Your task to perform on an android device: Check the weather Image 0: 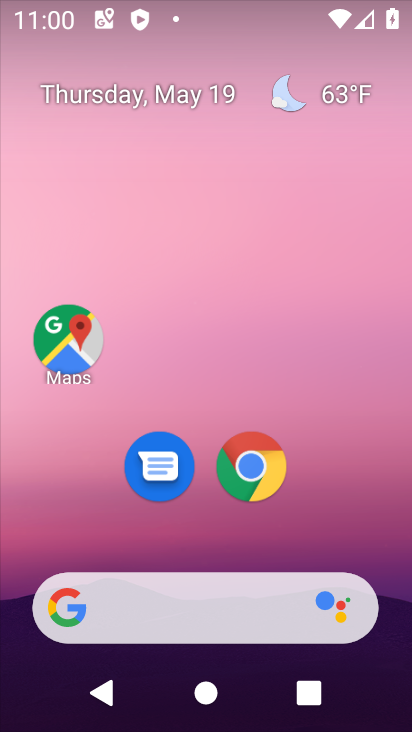
Step 0: drag from (392, 619) to (350, 17)
Your task to perform on an android device: Check the weather Image 1: 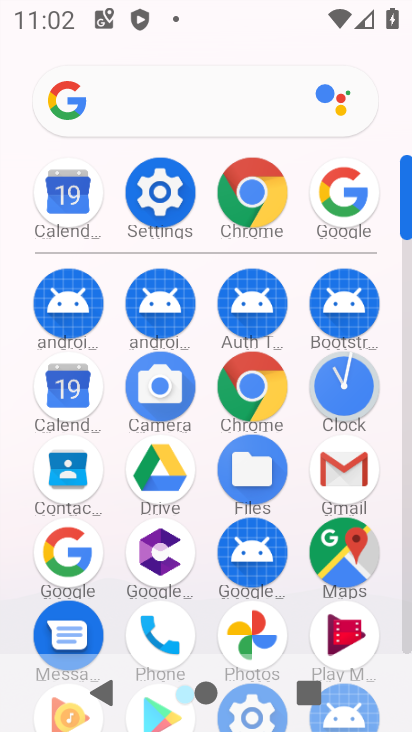
Step 1: click (73, 549)
Your task to perform on an android device: Check the weather Image 2: 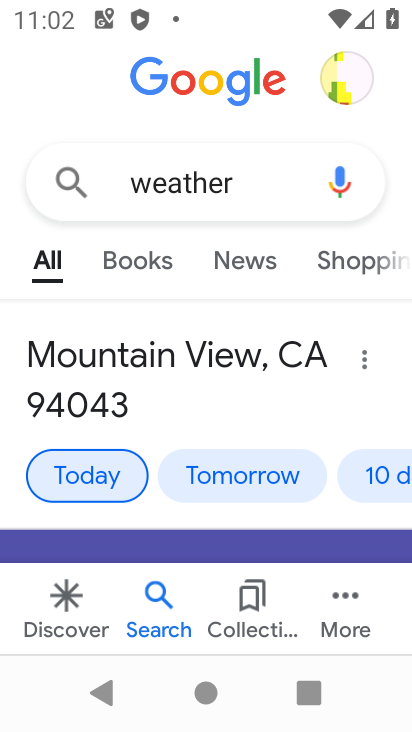
Step 2: task complete